Your task to perform on an android device: Go to sound settings Image 0: 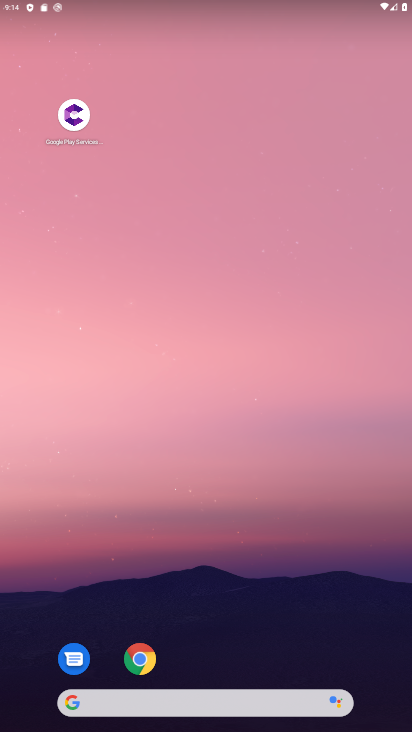
Step 0: drag from (216, 675) to (341, 0)
Your task to perform on an android device: Go to sound settings Image 1: 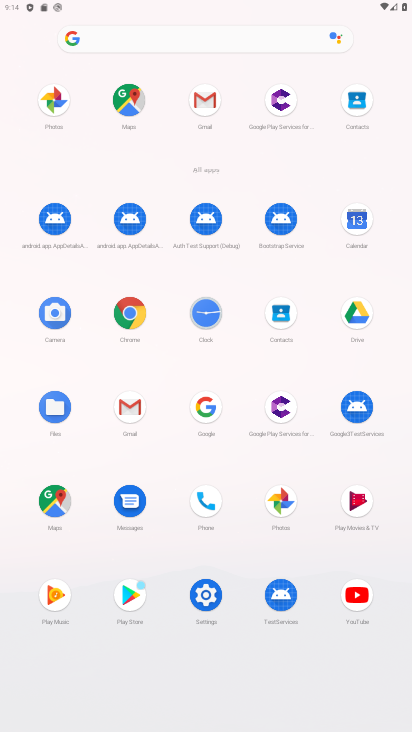
Step 1: click (204, 596)
Your task to perform on an android device: Go to sound settings Image 2: 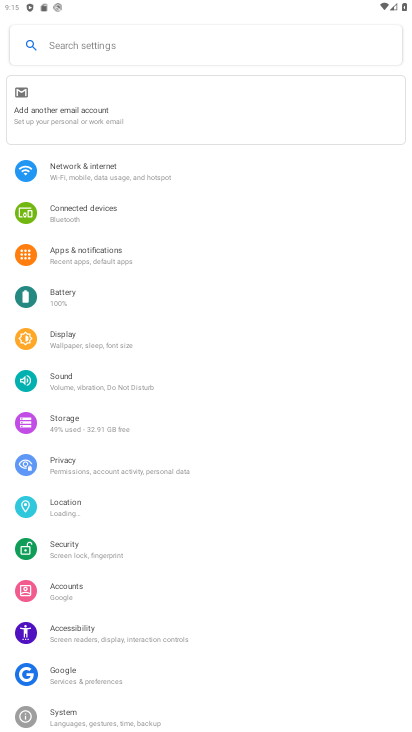
Step 2: click (114, 388)
Your task to perform on an android device: Go to sound settings Image 3: 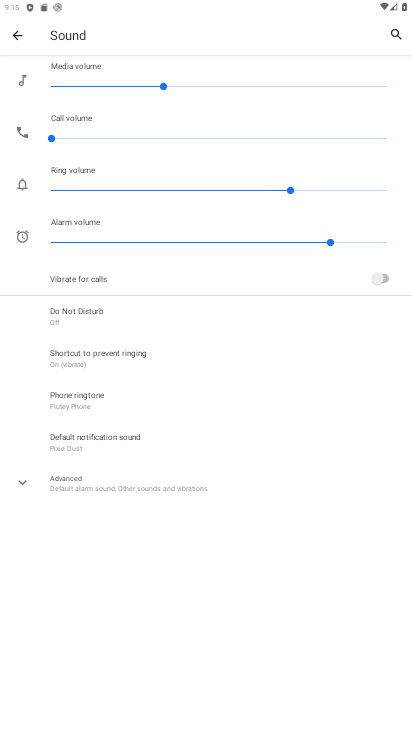
Step 3: task complete